Your task to perform on an android device: delete the emails in spam in the gmail app Image 0: 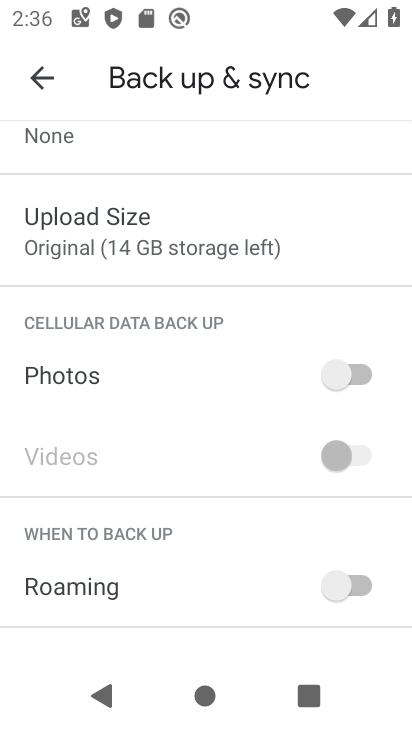
Step 0: press home button
Your task to perform on an android device: delete the emails in spam in the gmail app Image 1: 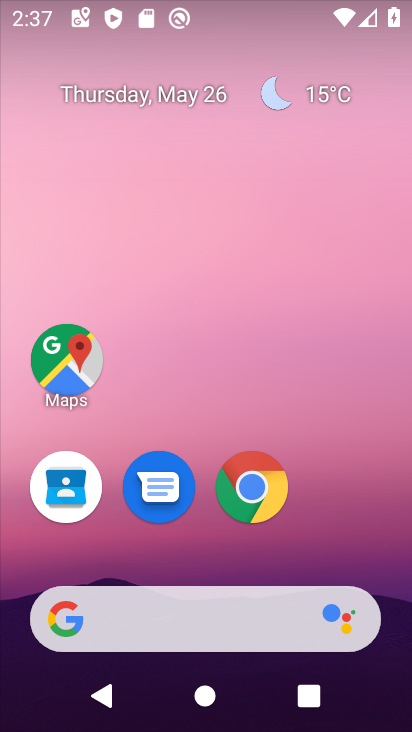
Step 1: drag from (209, 558) to (225, 156)
Your task to perform on an android device: delete the emails in spam in the gmail app Image 2: 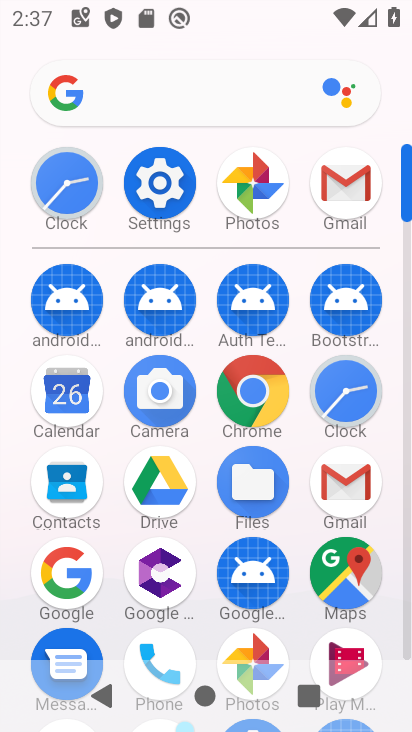
Step 2: click (337, 179)
Your task to perform on an android device: delete the emails in spam in the gmail app Image 3: 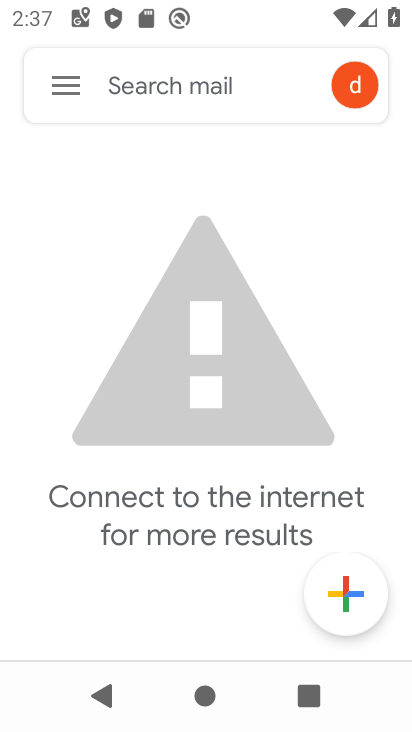
Step 3: click (56, 90)
Your task to perform on an android device: delete the emails in spam in the gmail app Image 4: 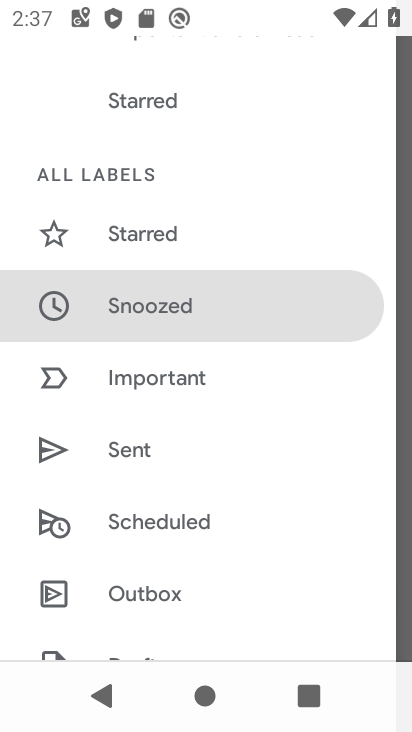
Step 4: drag from (172, 580) to (243, 317)
Your task to perform on an android device: delete the emails in spam in the gmail app Image 5: 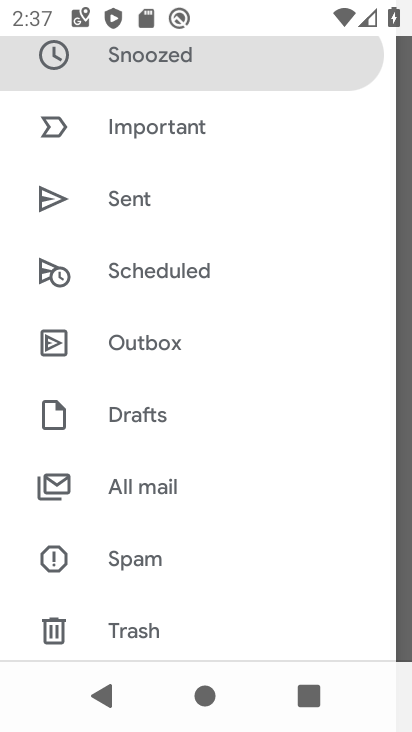
Step 5: click (163, 550)
Your task to perform on an android device: delete the emails in spam in the gmail app Image 6: 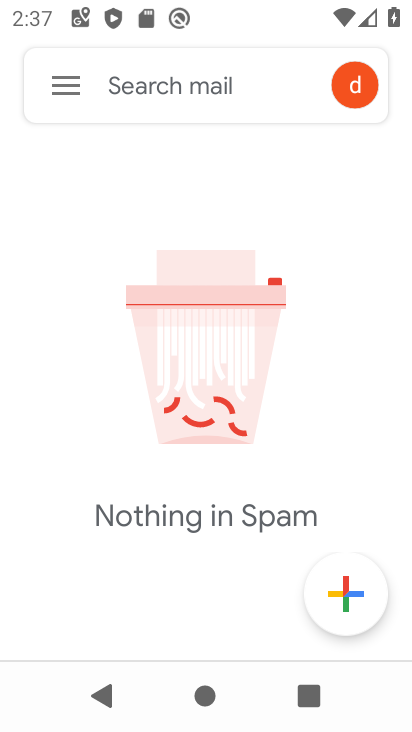
Step 6: task complete